Your task to perform on an android device: turn notification dots on Image 0: 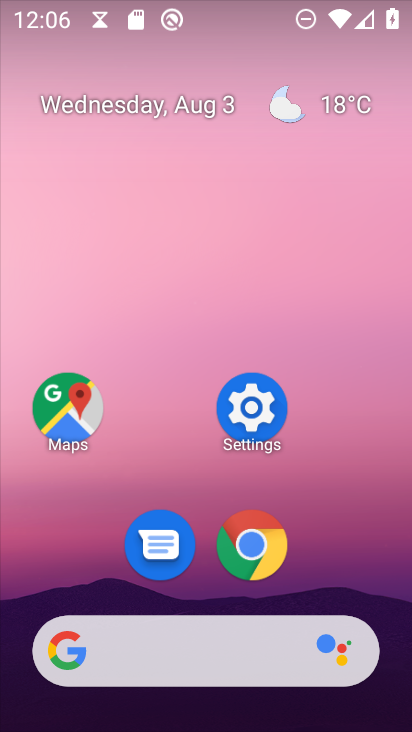
Step 0: click (245, 411)
Your task to perform on an android device: turn notification dots on Image 1: 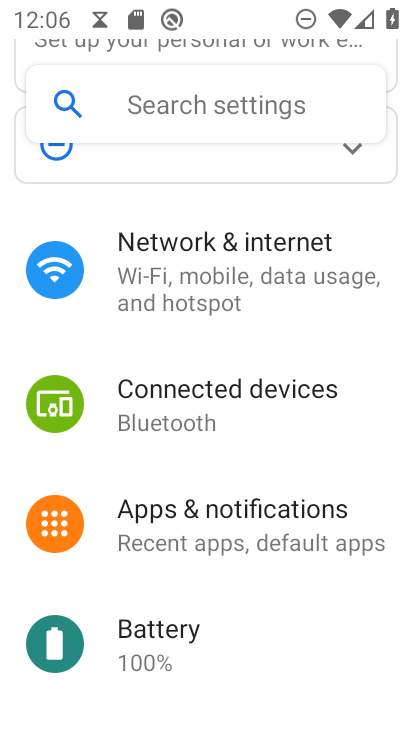
Step 1: click (251, 511)
Your task to perform on an android device: turn notification dots on Image 2: 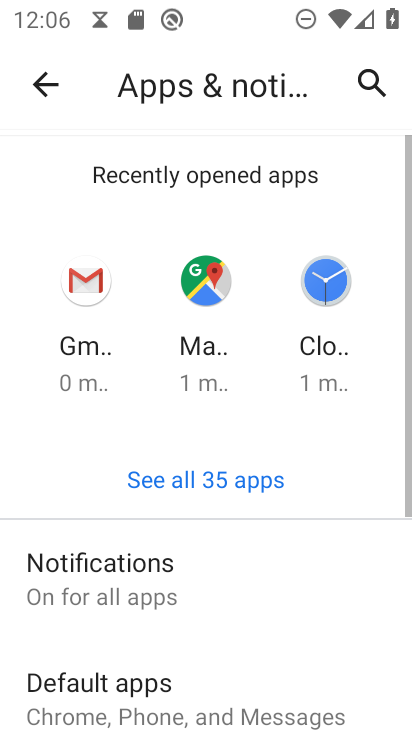
Step 2: click (133, 566)
Your task to perform on an android device: turn notification dots on Image 3: 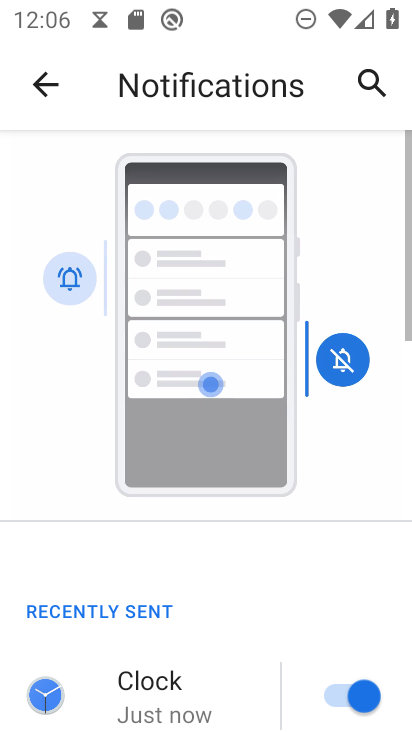
Step 3: drag from (270, 631) to (377, 142)
Your task to perform on an android device: turn notification dots on Image 4: 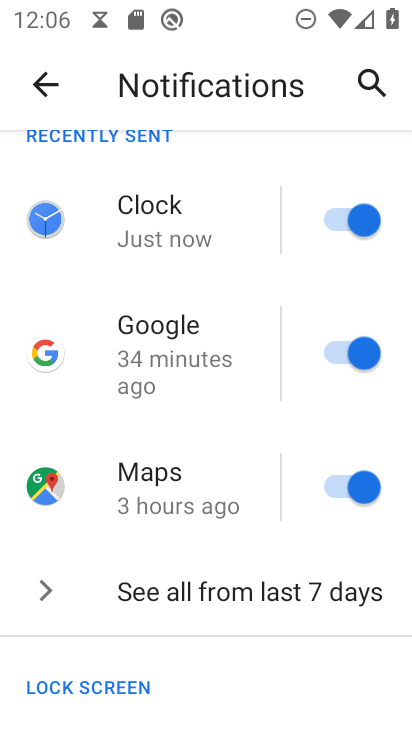
Step 4: drag from (232, 650) to (300, 349)
Your task to perform on an android device: turn notification dots on Image 5: 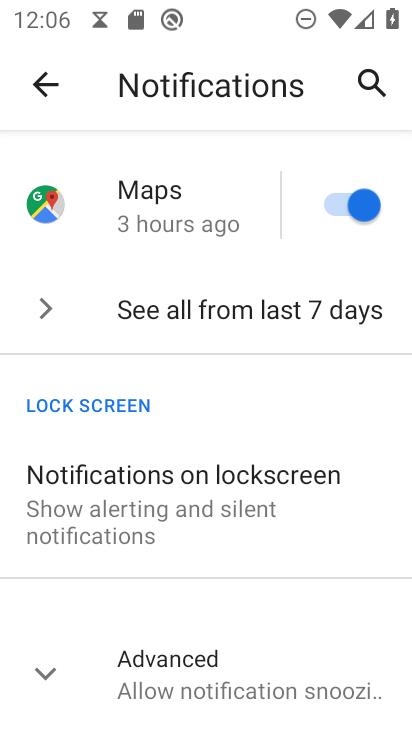
Step 5: click (198, 676)
Your task to perform on an android device: turn notification dots on Image 6: 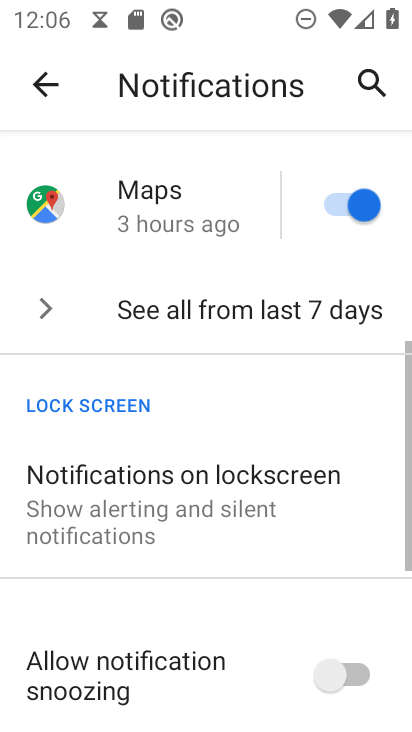
Step 6: task complete